Your task to perform on an android device: open app "YouTube Kids" (install if not already installed) Image 0: 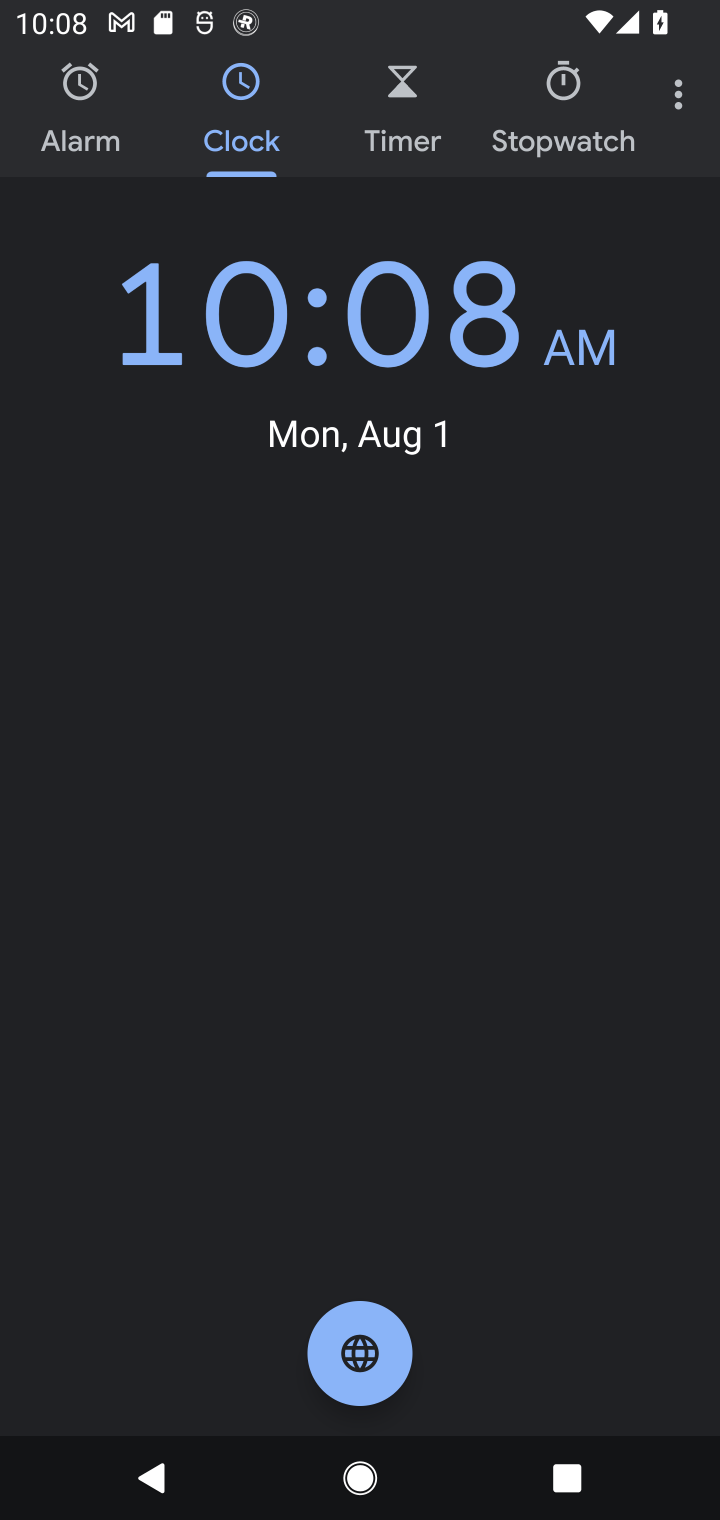
Step 0: press home button
Your task to perform on an android device: open app "YouTube Kids" (install if not already installed) Image 1: 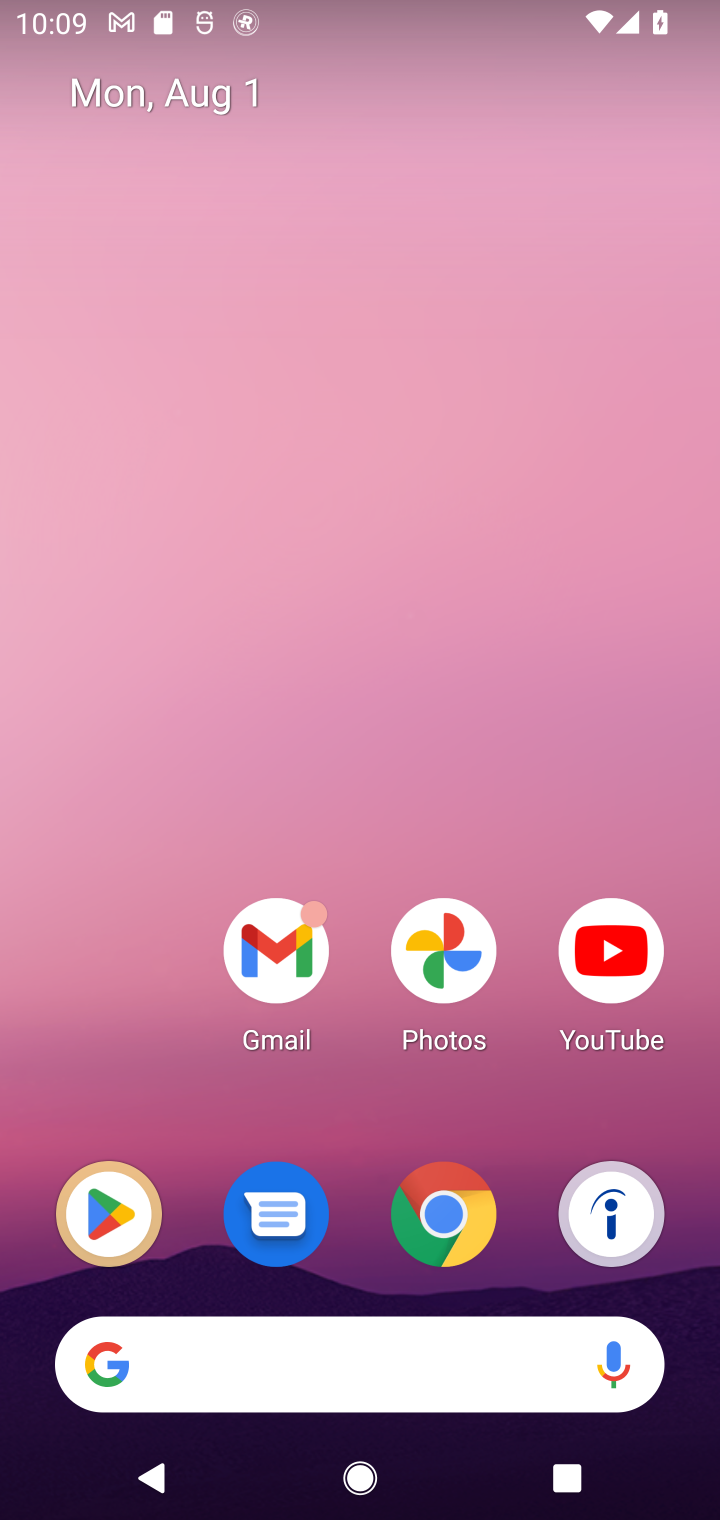
Step 1: click (96, 1224)
Your task to perform on an android device: open app "YouTube Kids" (install if not already installed) Image 2: 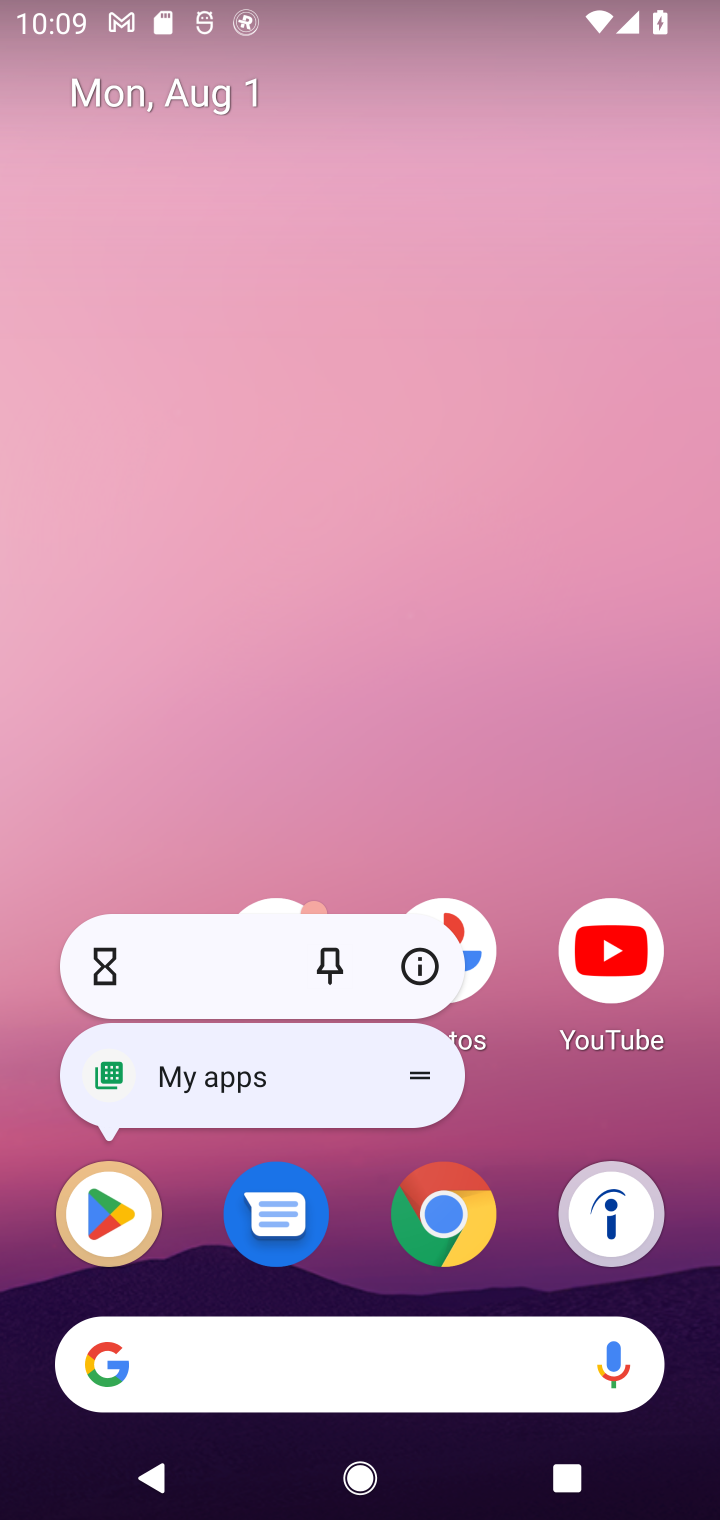
Step 2: click (96, 1222)
Your task to perform on an android device: open app "YouTube Kids" (install if not already installed) Image 3: 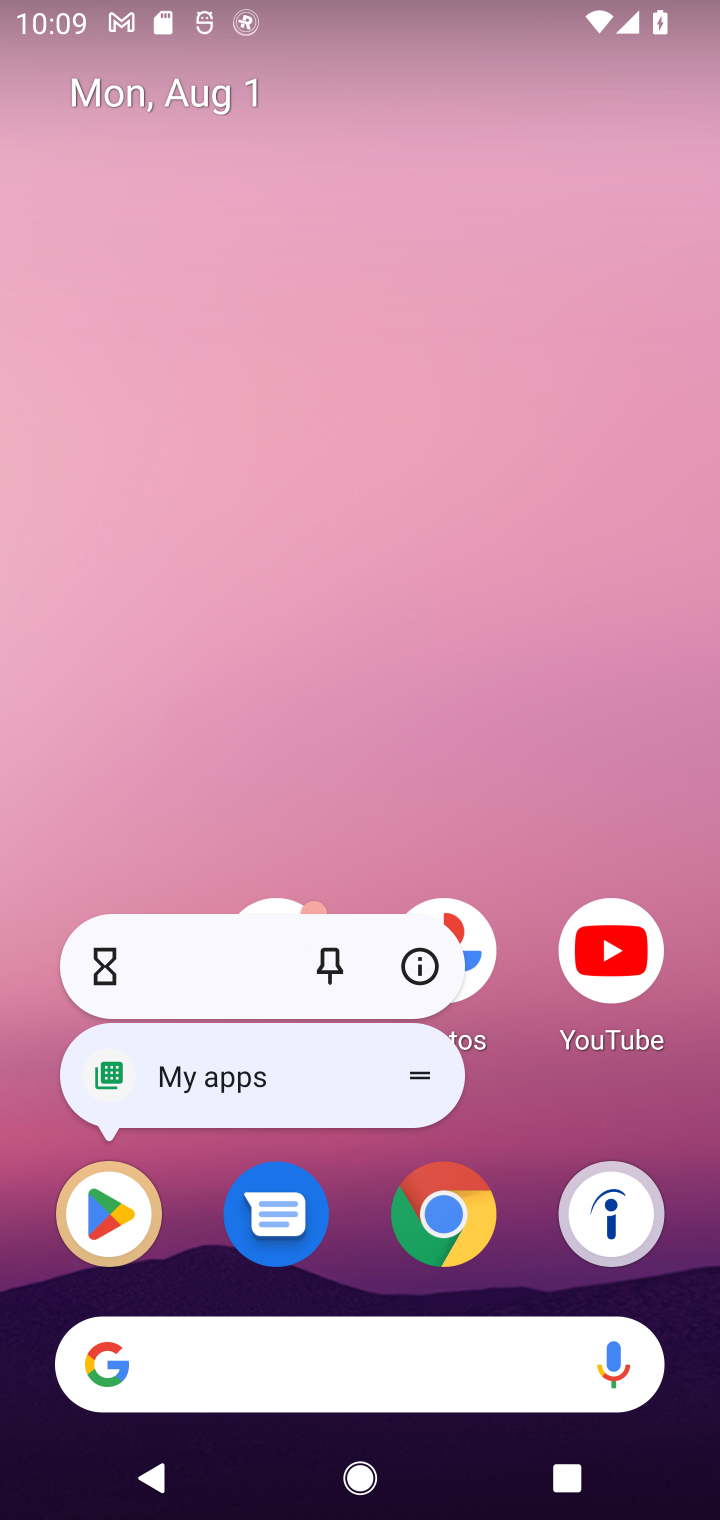
Step 3: click (96, 1224)
Your task to perform on an android device: open app "YouTube Kids" (install if not already installed) Image 4: 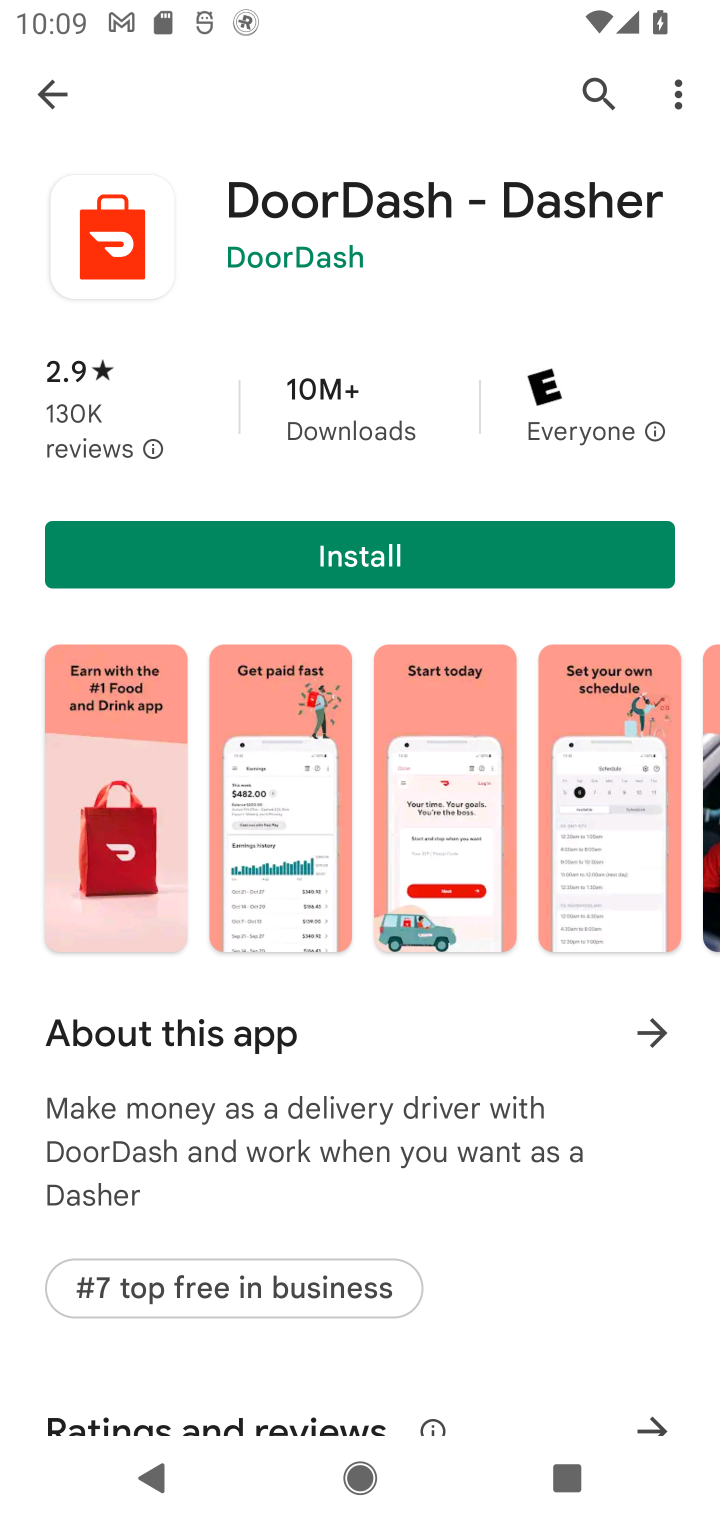
Step 4: click (594, 94)
Your task to perform on an android device: open app "YouTube Kids" (install if not already installed) Image 5: 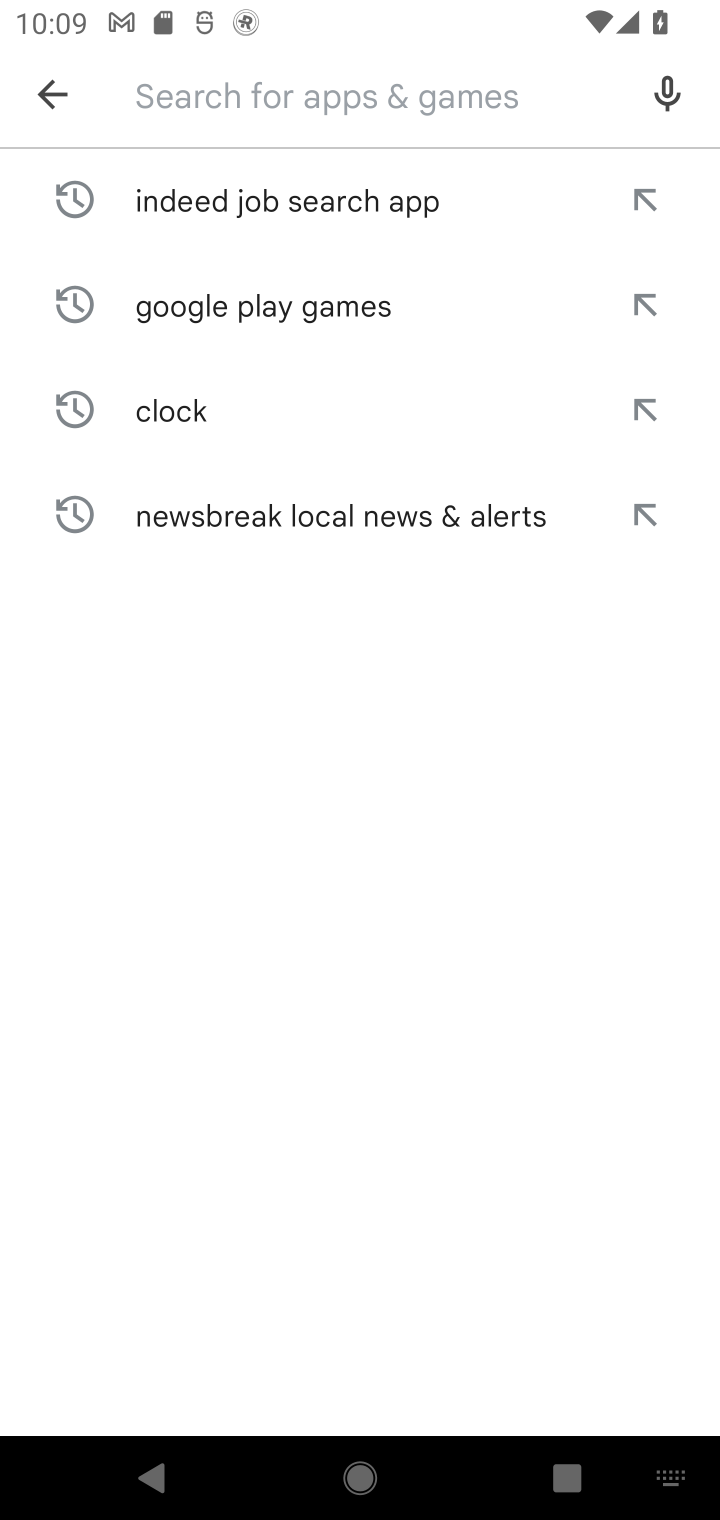
Step 5: type "YouTube Kids"
Your task to perform on an android device: open app "YouTube Kids" (install if not already installed) Image 6: 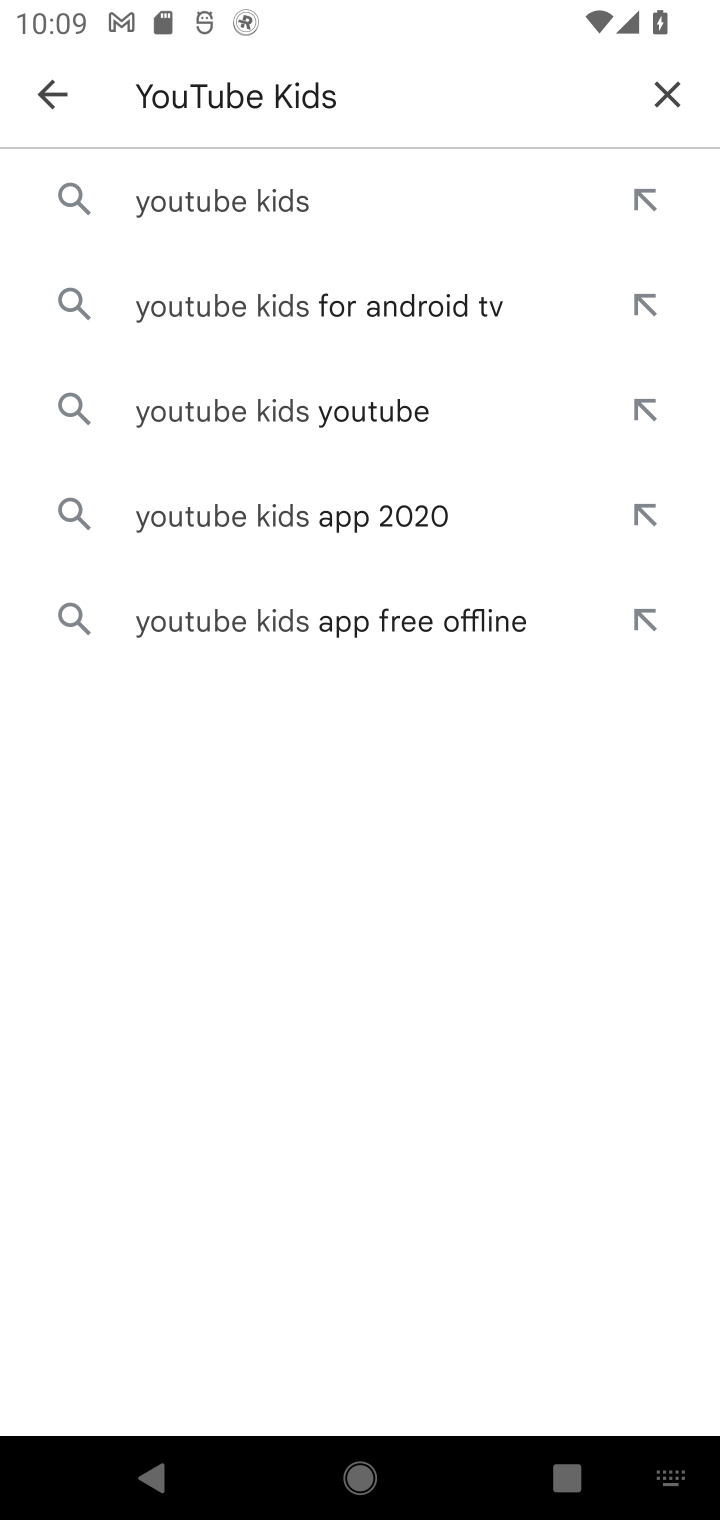
Step 6: click (286, 210)
Your task to perform on an android device: open app "YouTube Kids" (install if not already installed) Image 7: 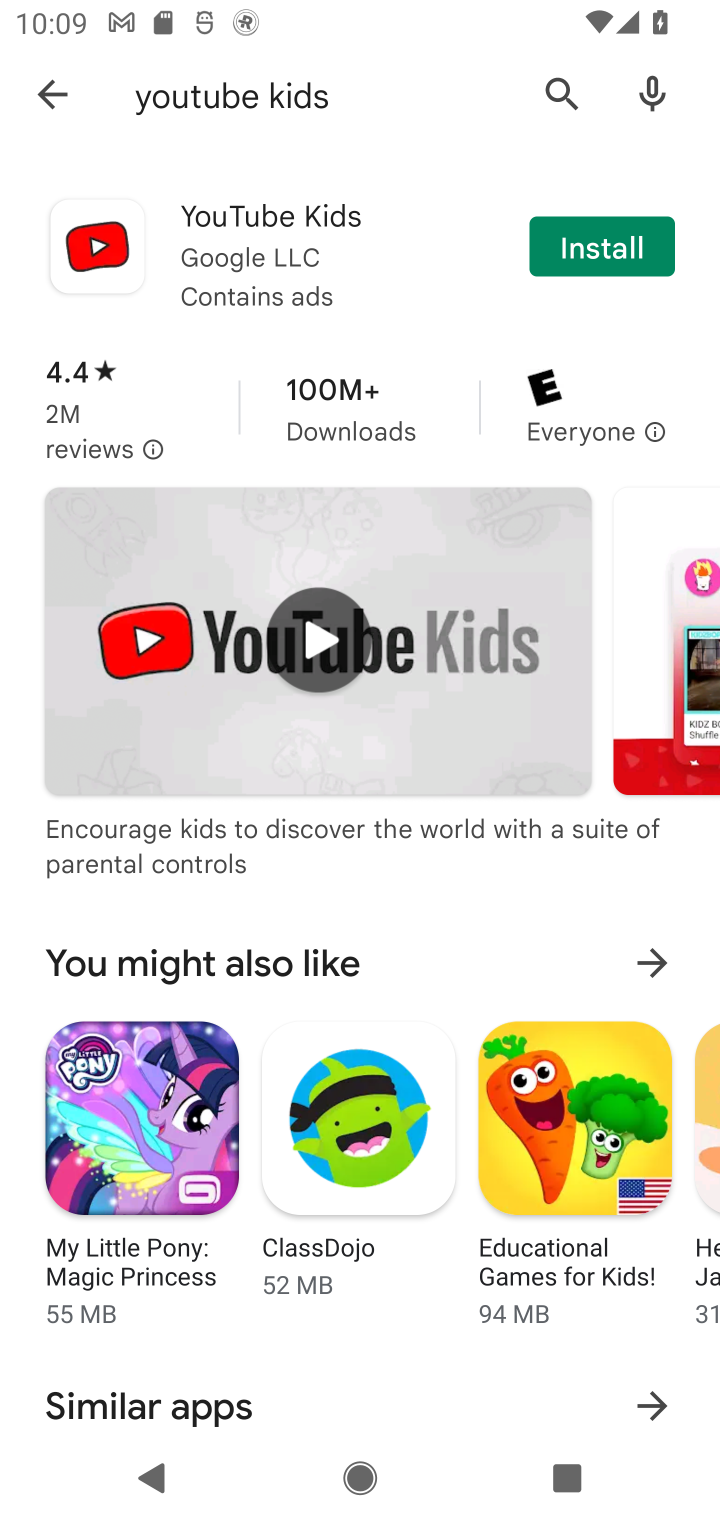
Step 7: click (572, 241)
Your task to perform on an android device: open app "YouTube Kids" (install if not already installed) Image 8: 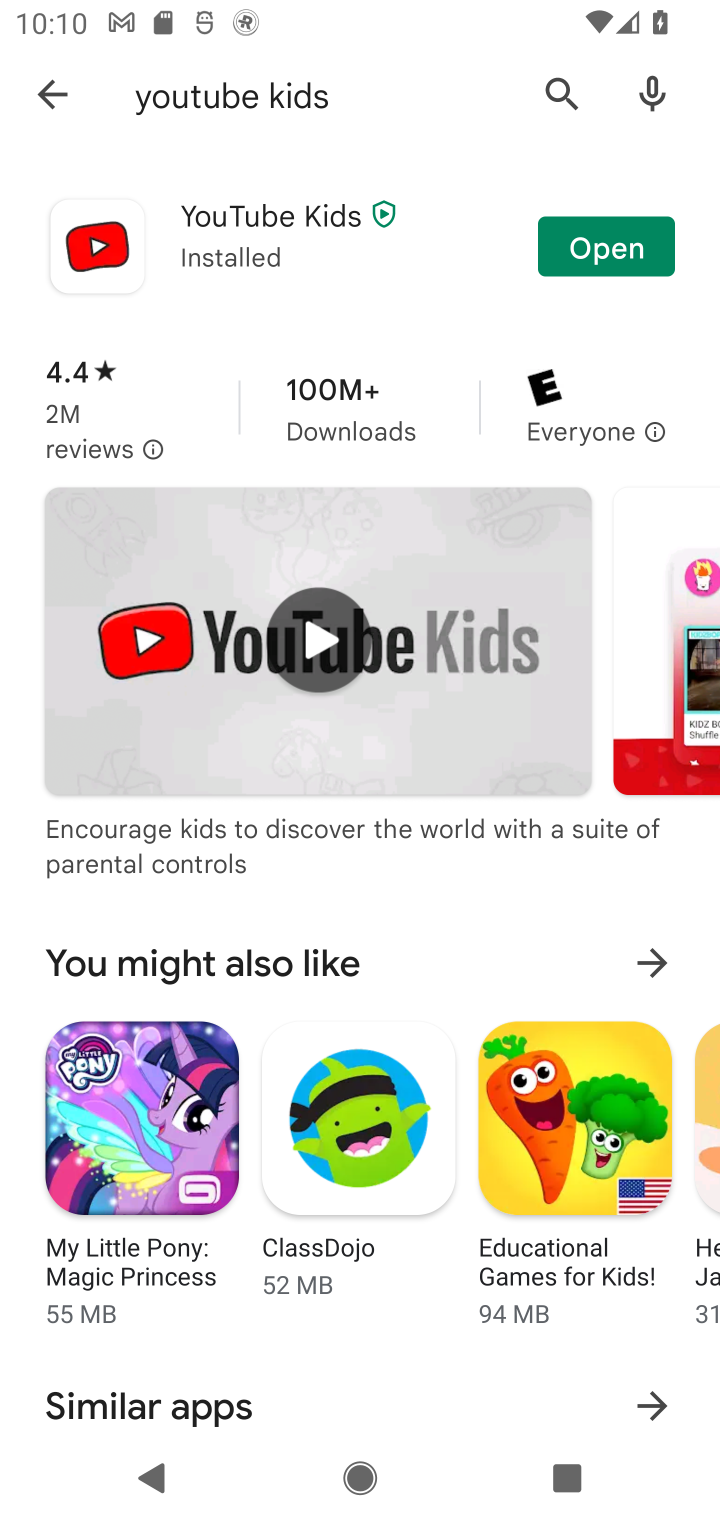
Step 8: click (615, 248)
Your task to perform on an android device: open app "YouTube Kids" (install if not already installed) Image 9: 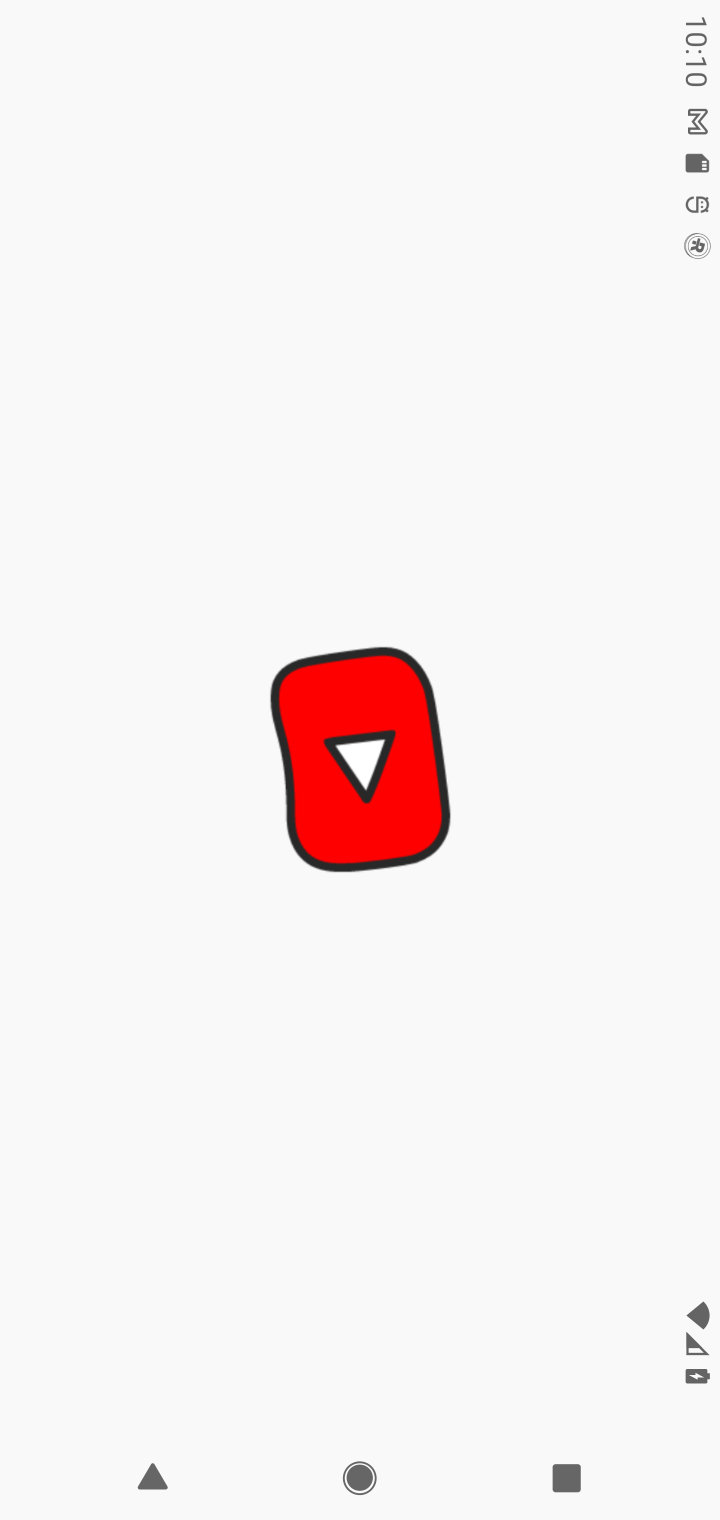
Step 9: task complete